Your task to perform on an android device: Open Amazon Image 0: 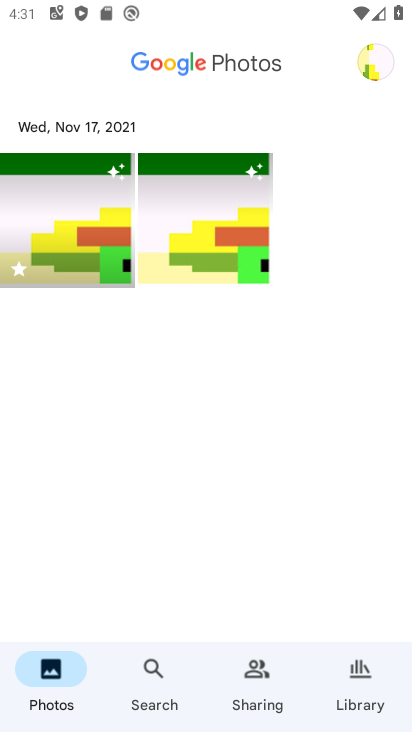
Step 0: press home button
Your task to perform on an android device: Open Amazon Image 1: 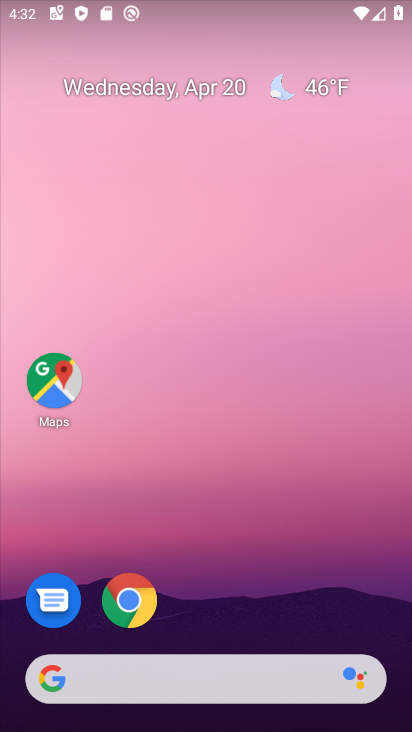
Step 1: click (128, 596)
Your task to perform on an android device: Open Amazon Image 2: 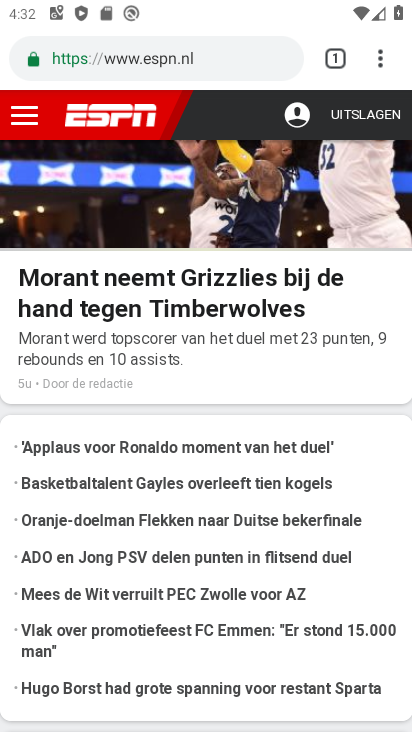
Step 2: click (335, 50)
Your task to perform on an android device: Open Amazon Image 3: 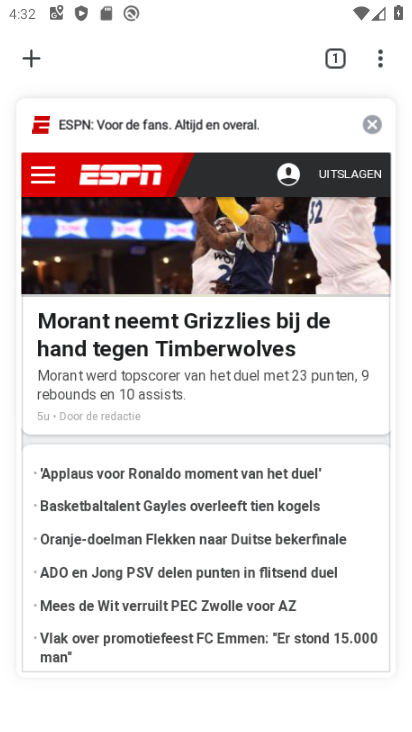
Step 3: click (371, 120)
Your task to perform on an android device: Open Amazon Image 4: 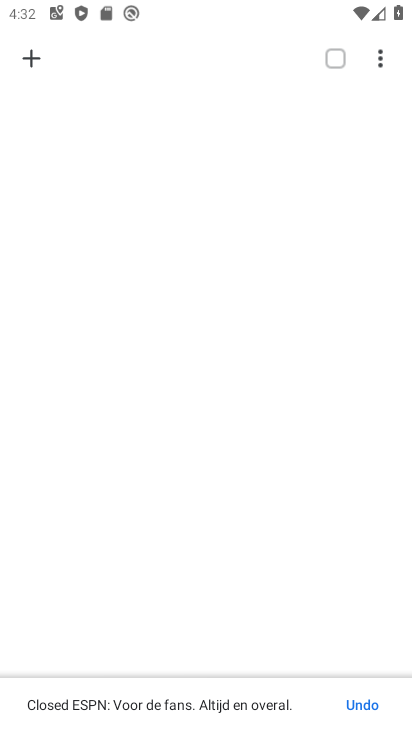
Step 4: click (30, 56)
Your task to perform on an android device: Open Amazon Image 5: 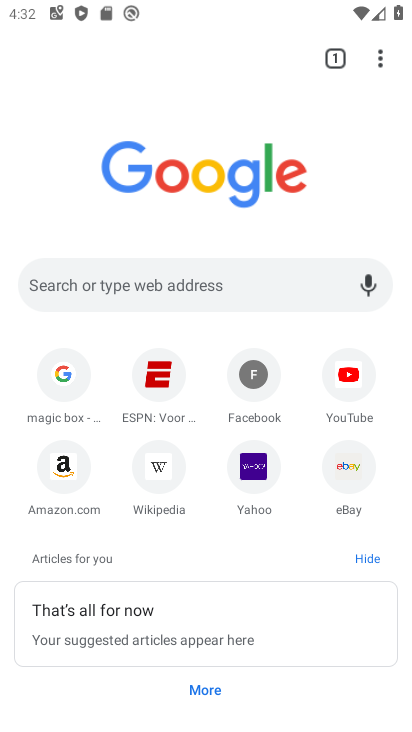
Step 5: click (57, 460)
Your task to perform on an android device: Open Amazon Image 6: 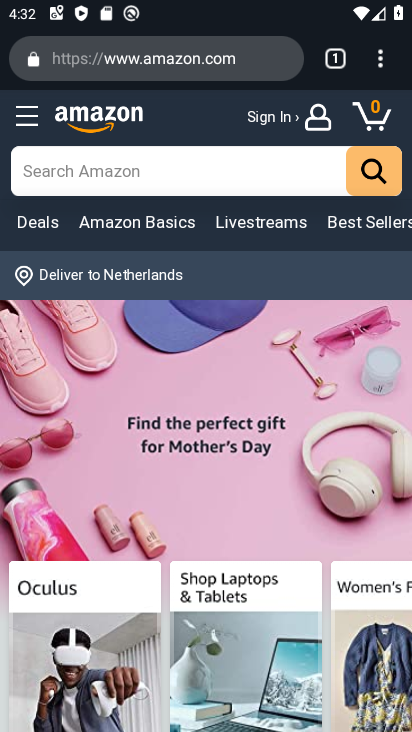
Step 6: task complete